Your task to perform on an android device: Open Chrome and go to settings Image 0: 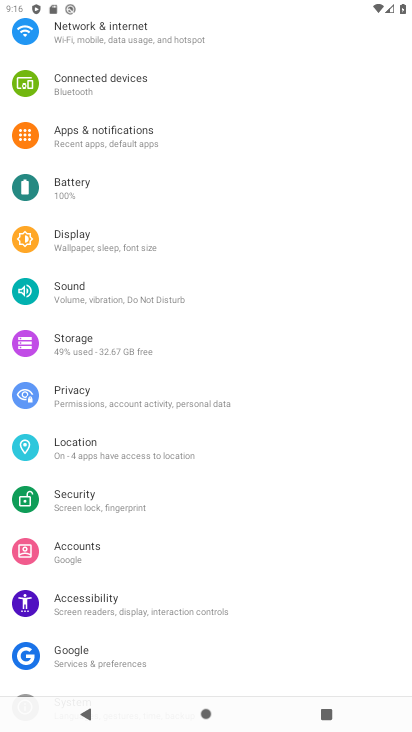
Step 0: press home button
Your task to perform on an android device: Open Chrome and go to settings Image 1: 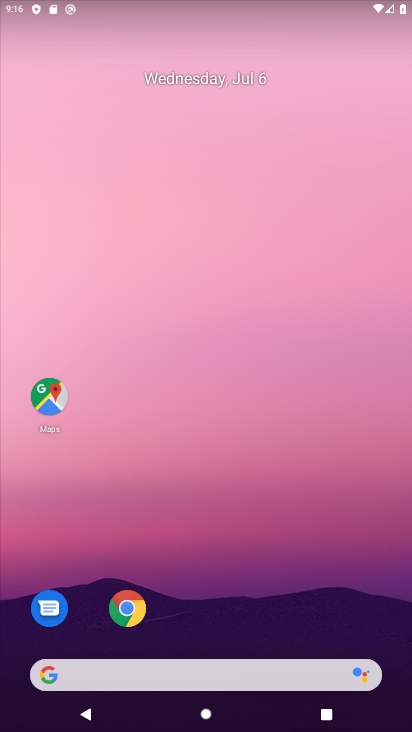
Step 1: drag from (213, 673) to (219, 168)
Your task to perform on an android device: Open Chrome and go to settings Image 2: 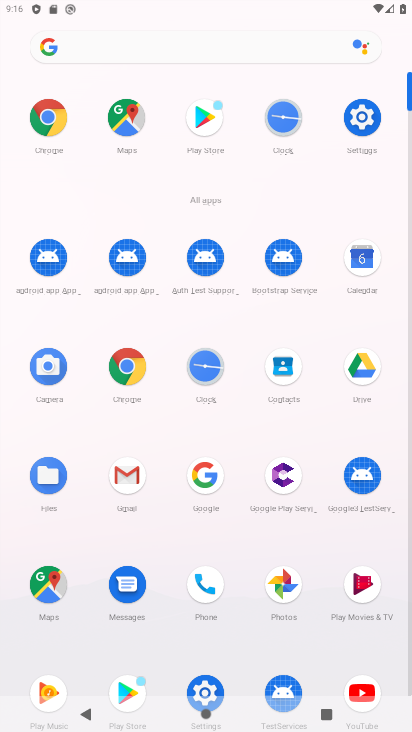
Step 2: click (44, 122)
Your task to perform on an android device: Open Chrome and go to settings Image 3: 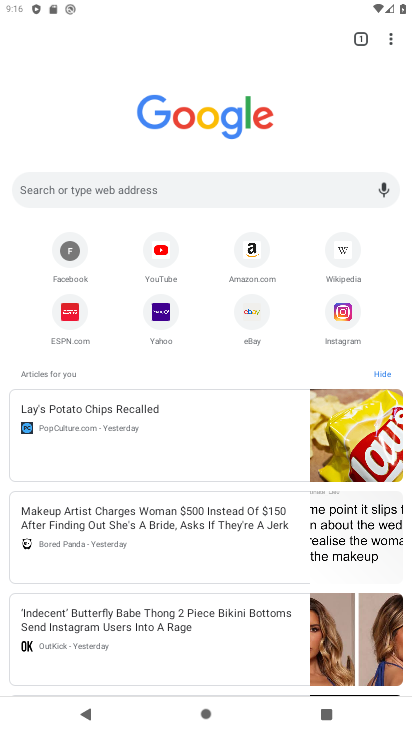
Step 3: click (383, 45)
Your task to perform on an android device: Open Chrome and go to settings Image 4: 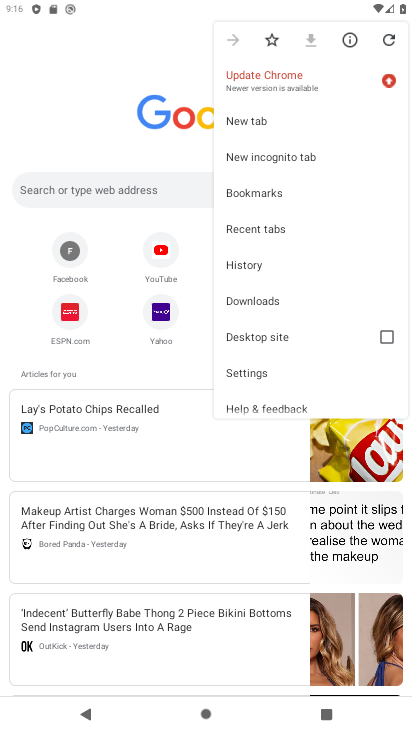
Step 4: click (286, 373)
Your task to perform on an android device: Open Chrome and go to settings Image 5: 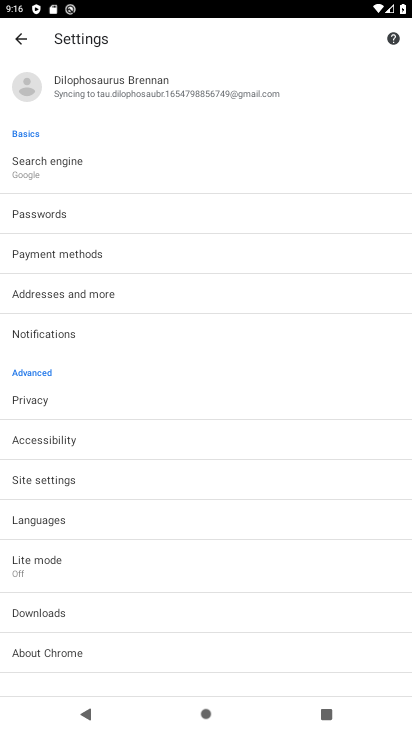
Step 5: task complete